Your task to perform on an android device: check google app version Image 0: 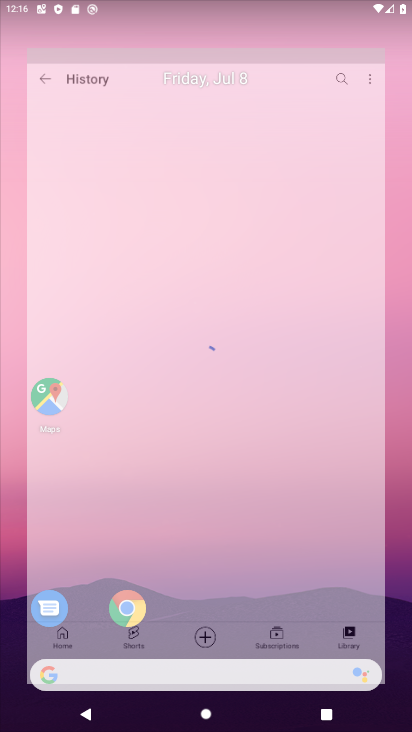
Step 0: press enter
Your task to perform on an android device: check google app version Image 1: 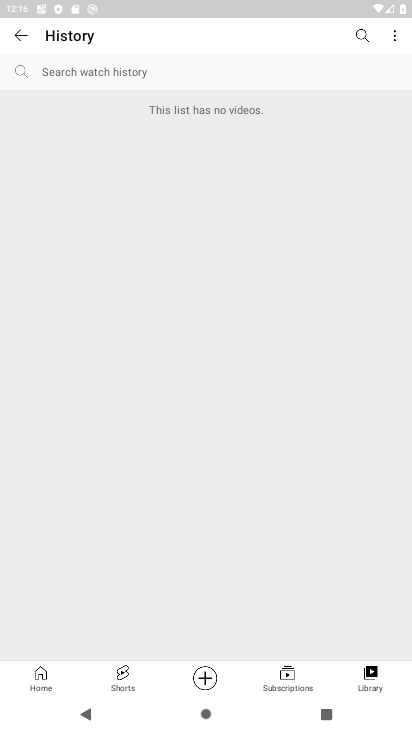
Step 1: drag from (261, 673) to (267, 305)
Your task to perform on an android device: check google app version Image 2: 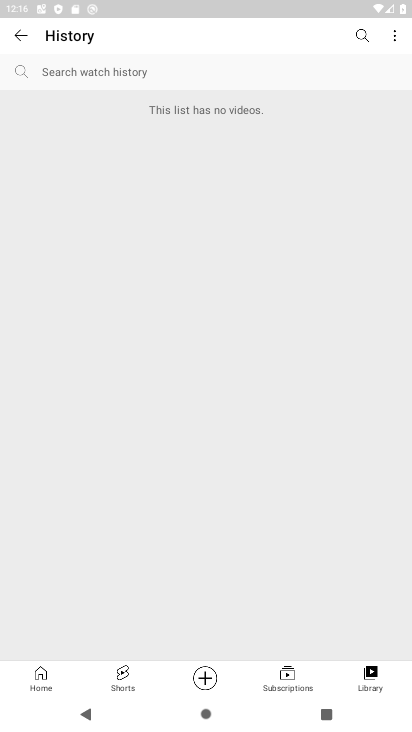
Step 2: press home button
Your task to perform on an android device: check google app version Image 3: 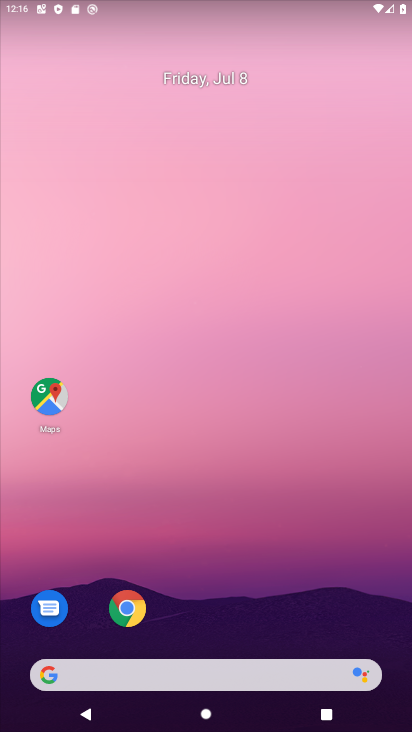
Step 3: drag from (247, 605) to (358, 2)
Your task to perform on an android device: check google app version Image 4: 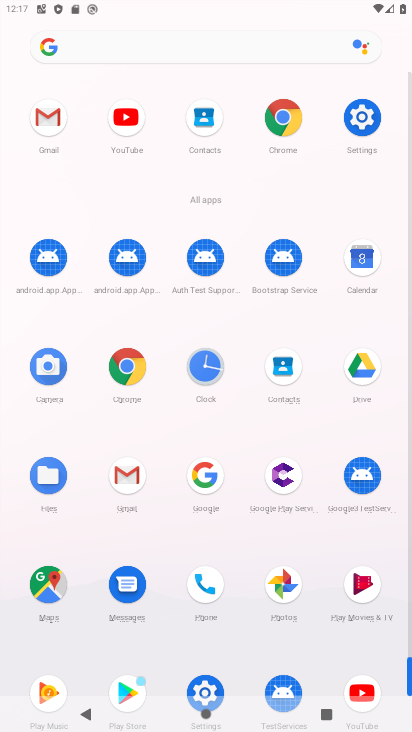
Step 4: click (190, 478)
Your task to perform on an android device: check google app version Image 5: 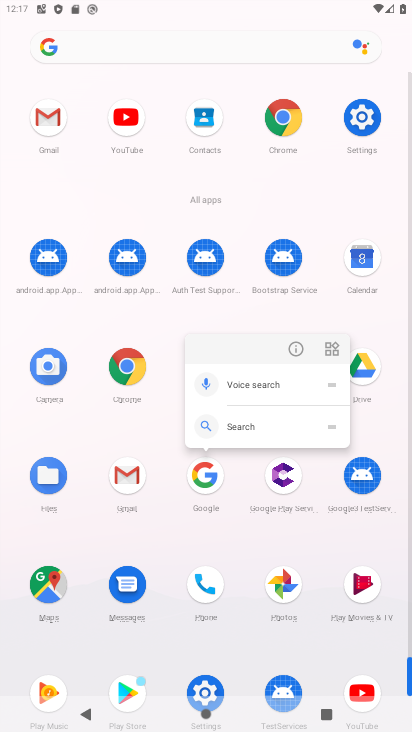
Step 5: click (290, 345)
Your task to perform on an android device: check google app version Image 6: 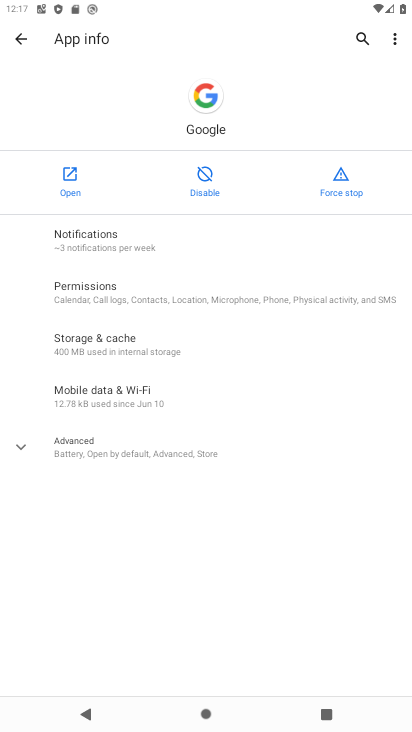
Step 6: click (141, 436)
Your task to perform on an android device: check google app version Image 7: 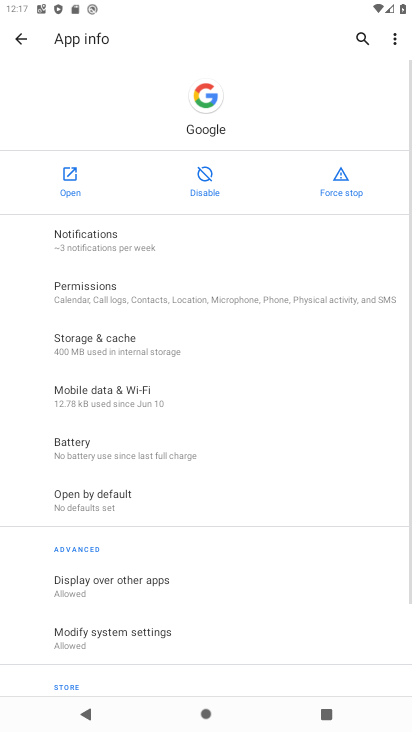
Step 7: task complete